Your task to perform on an android device: check android version Image 0: 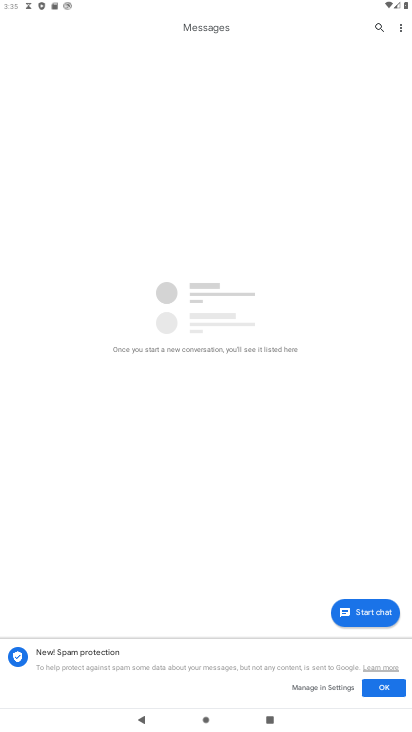
Step 0: press home button
Your task to perform on an android device: check android version Image 1: 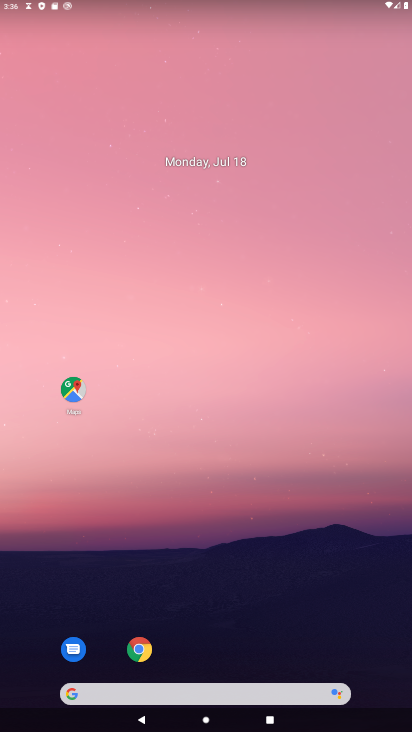
Step 1: drag from (285, 612) to (249, 86)
Your task to perform on an android device: check android version Image 2: 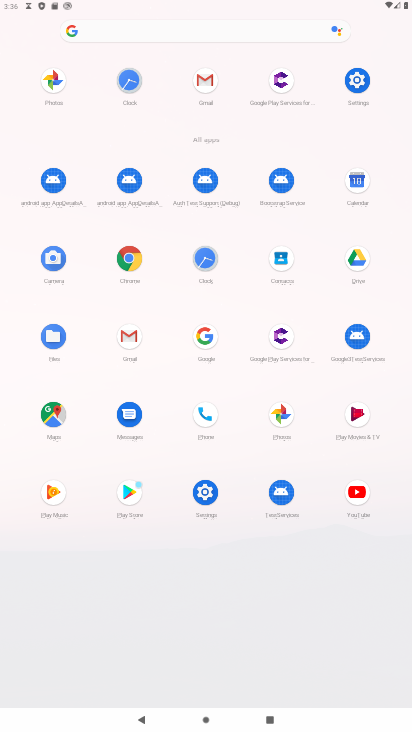
Step 2: click (360, 82)
Your task to perform on an android device: check android version Image 3: 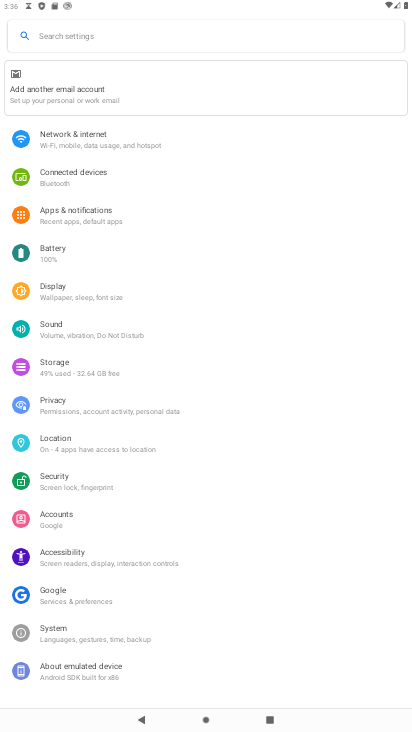
Step 3: click (61, 664)
Your task to perform on an android device: check android version Image 4: 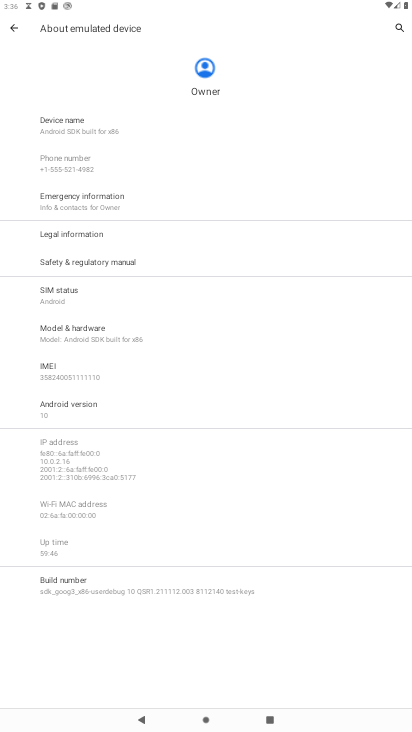
Step 4: click (52, 415)
Your task to perform on an android device: check android version Image 5: 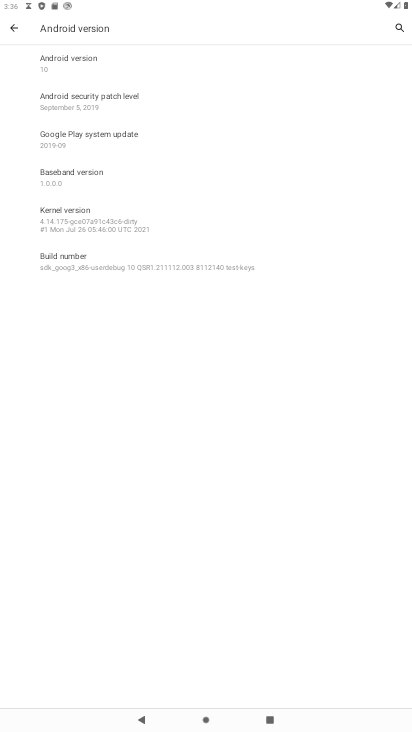
Step 5: task complete